Your task to perform on an android device: Check the news Image 0: 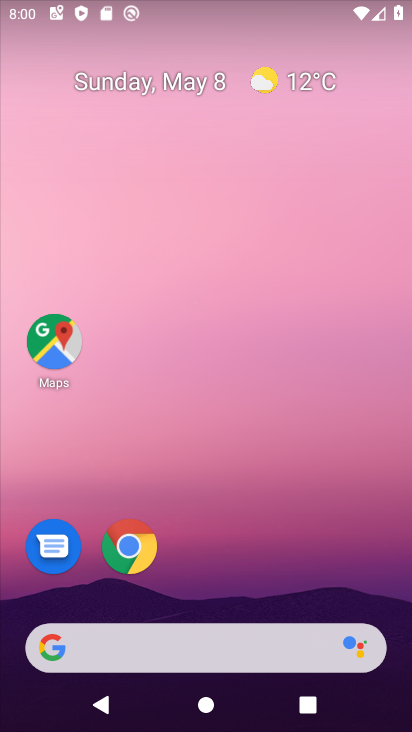
Step 0: drag from (3, 203) to (288, 202)
Your task to perform on an android device: Check the news Image 1: 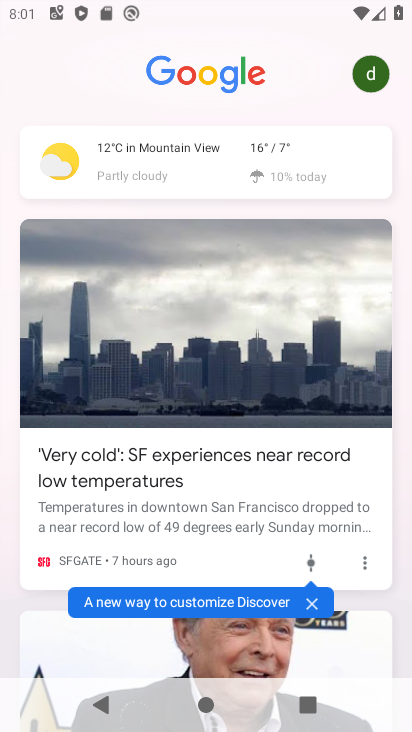
Step 1: task complete